Your task to perform on an android device: Go to Yahoo.com Image 0: 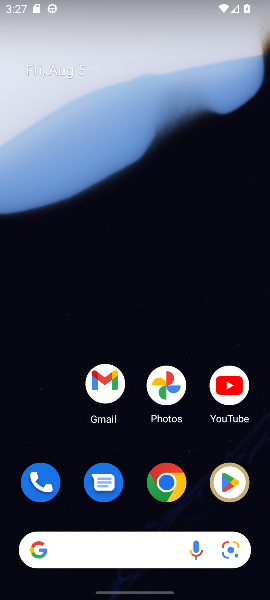
Step 0: press home button
Your task to perform on an android device: Go to Yahoo.com Image 1: 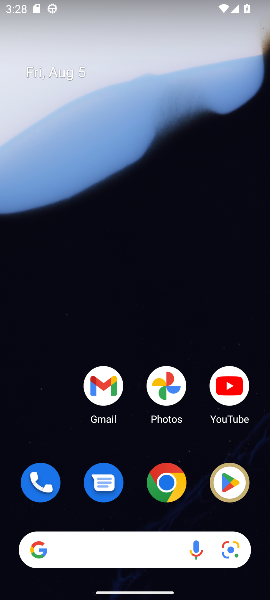
Step 1: click (166, 475)
Your task to perform on an android device: Go to Yahoo.com Image 2: 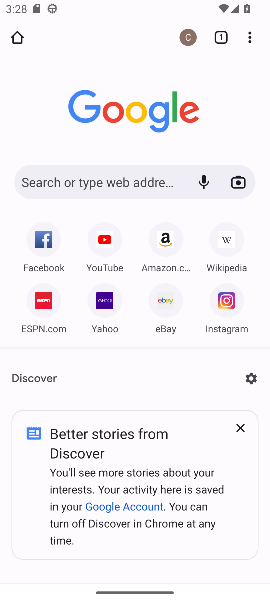
Step 2: click (103, 299)
Your task to perform on an android device: Go to Yahoo.com Image 3: 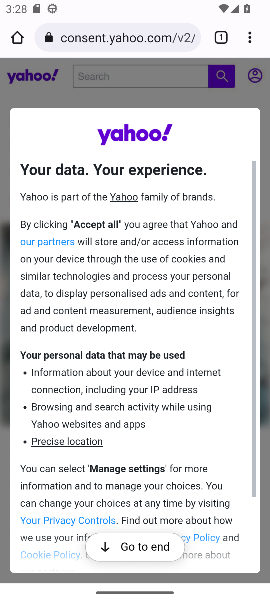
Step 3: click (104, 541)
Your task to perform on an android device: Go to Yahoo.com Image 4: 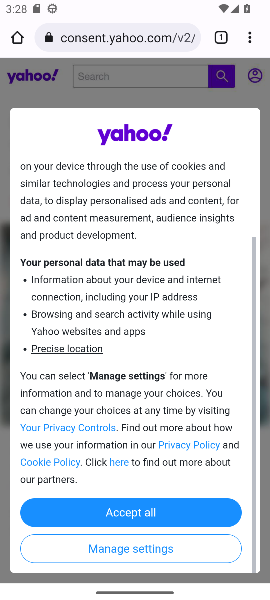
Step 4: click (136, 507)
Your task to perform on an android device: Go to Yahoo.com Image 5: 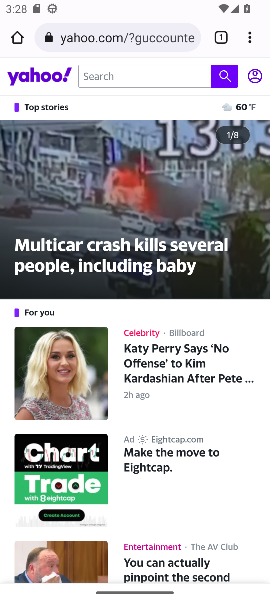
Step 5: task complete